Your task to perform on an android device: Open Maps and search for coffee Image 0: 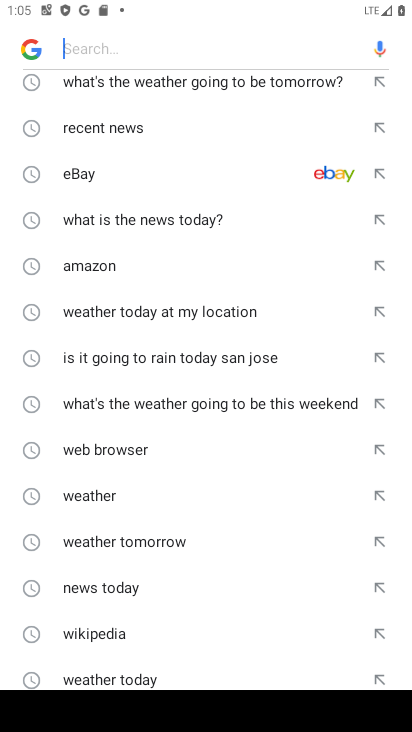
Step 0: press home button
Your task to perform on an android device: Open Maps and search for coffee Image 1: 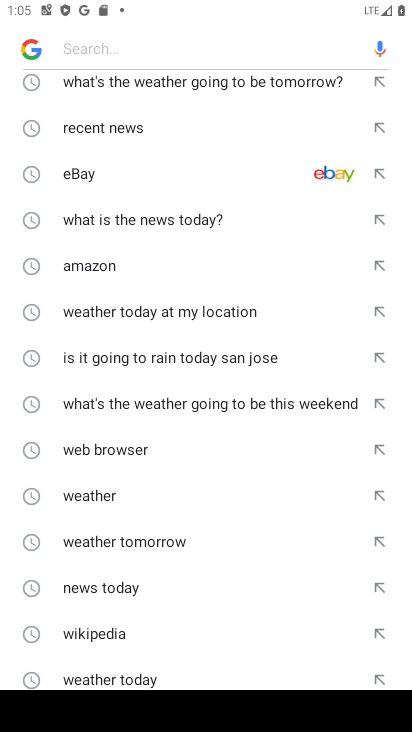
Step 1: drag from (234, 598) to (205, 32)
Your task to perform on an android device: Open Maps and search for coffee Image 2: 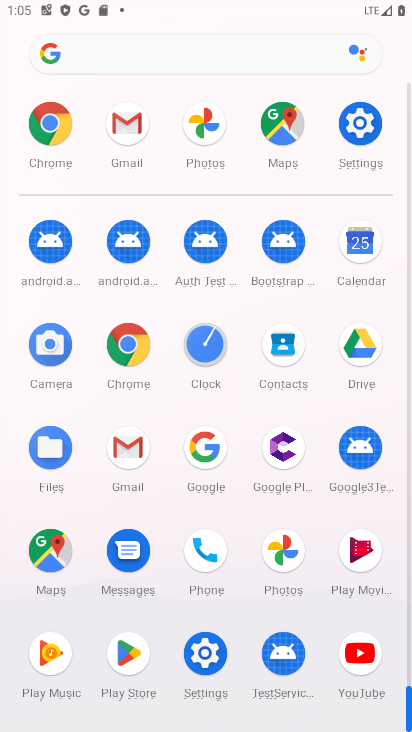
Step 2: click (72, 545)
Your task to perform on an android device: Open Maps and search for coffee Image 3: 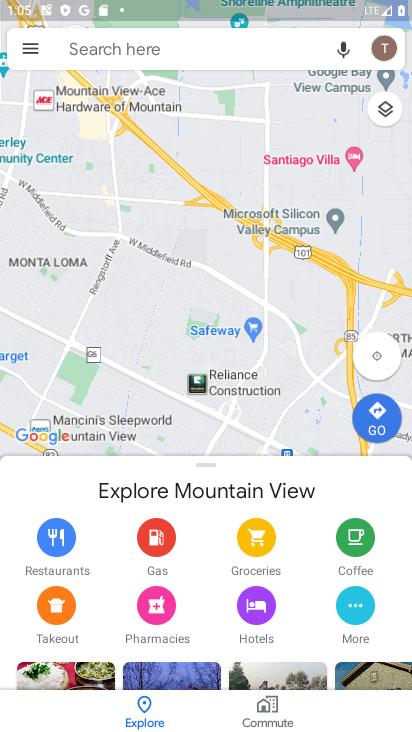
Step 3: click (107, 52)
Your task to perform on an android device: Open Maps and search for coffee Image 4: 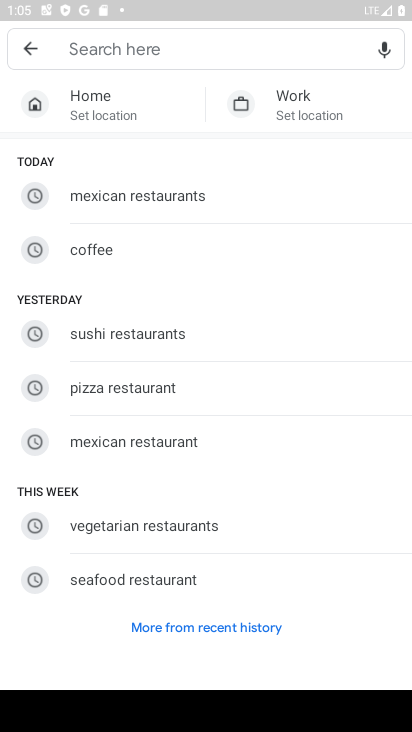
Step 4: type "coffee"
Your task to perform on an android device: Open Maps and search for coffee Image 5: 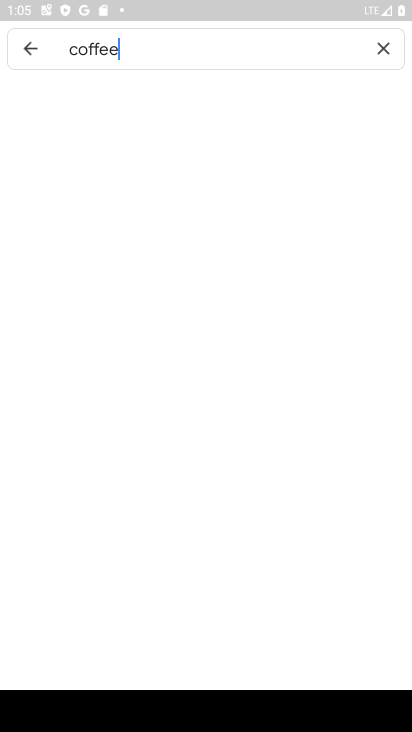
Step 5: type ""
Your task to perform on an android device: Open Maps and search for coffee Image 6: 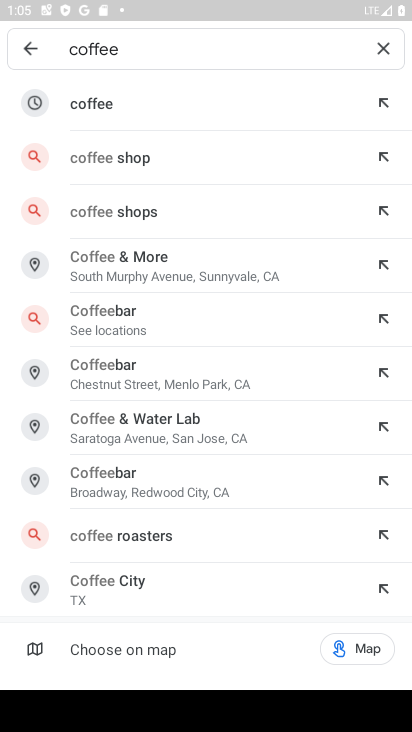
Step 6: click (94, 107)
Your task to perform on an android device: Open Maps and search for coffee Image 7: 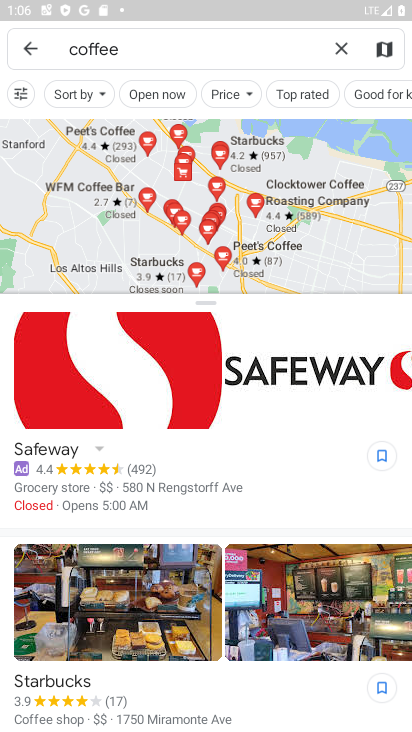
Step 7: task complete